Your task to perform on an android device: Search for macbook pro 15 inch on ebay, select the first entry, add it to the cart, then select checkout. Image 0: 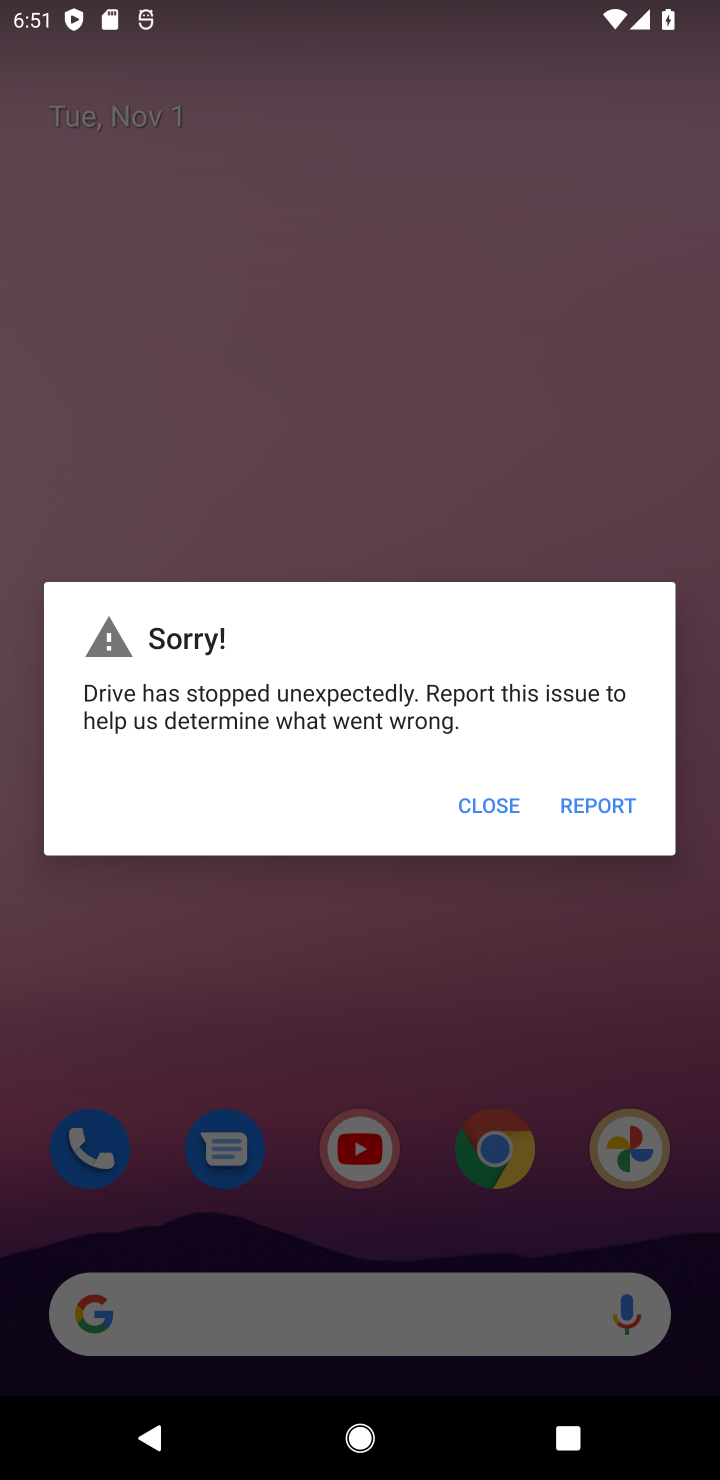
Step 0: press home button
Your task to perform on an android device: Search for macbook pro 15 inch on ebay, select the first entry, add it to the cart, then select checkout. Image 1: 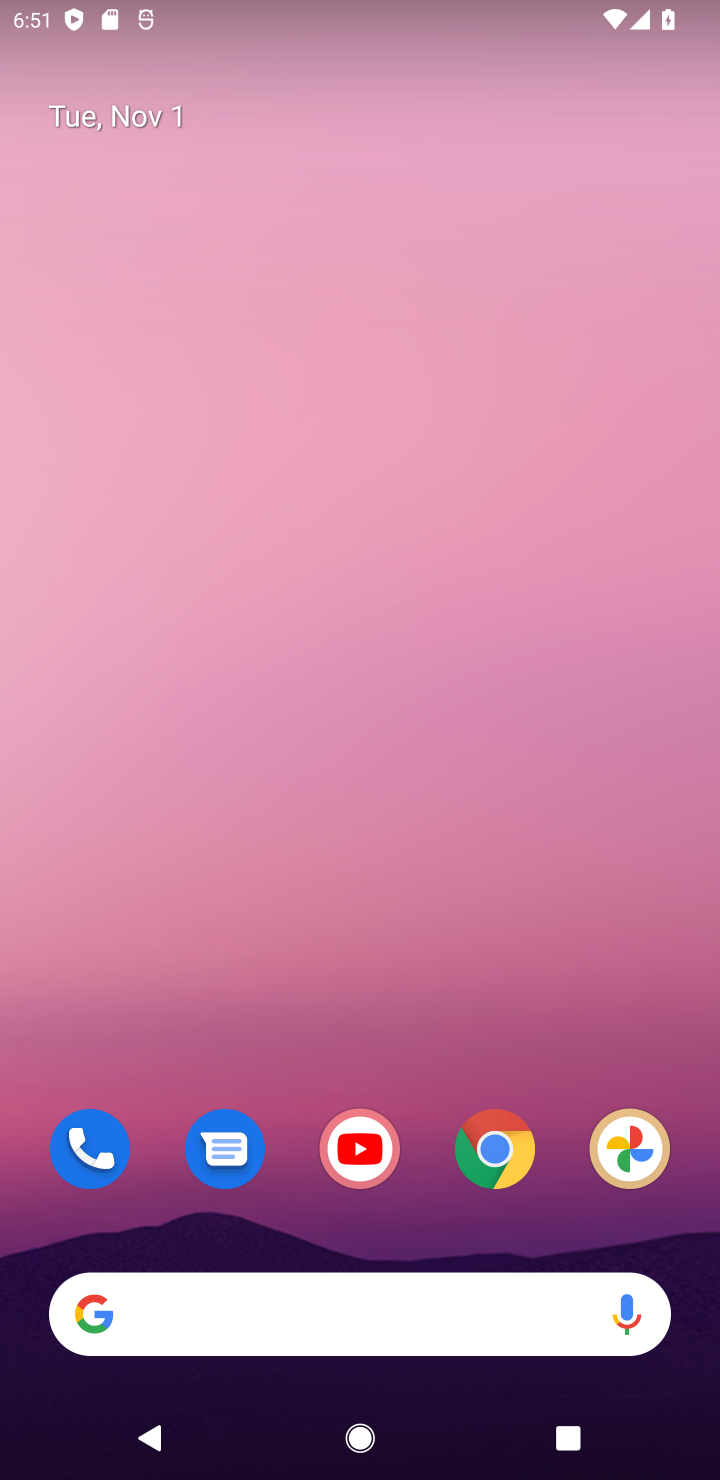
Step 1: drag from (416, 1254) to (502, 254)
Your task to perform on an android device: Search for macbook pro 15 inch on ebay, select the first entry, add it to the cart, then select checkout. Image 2: 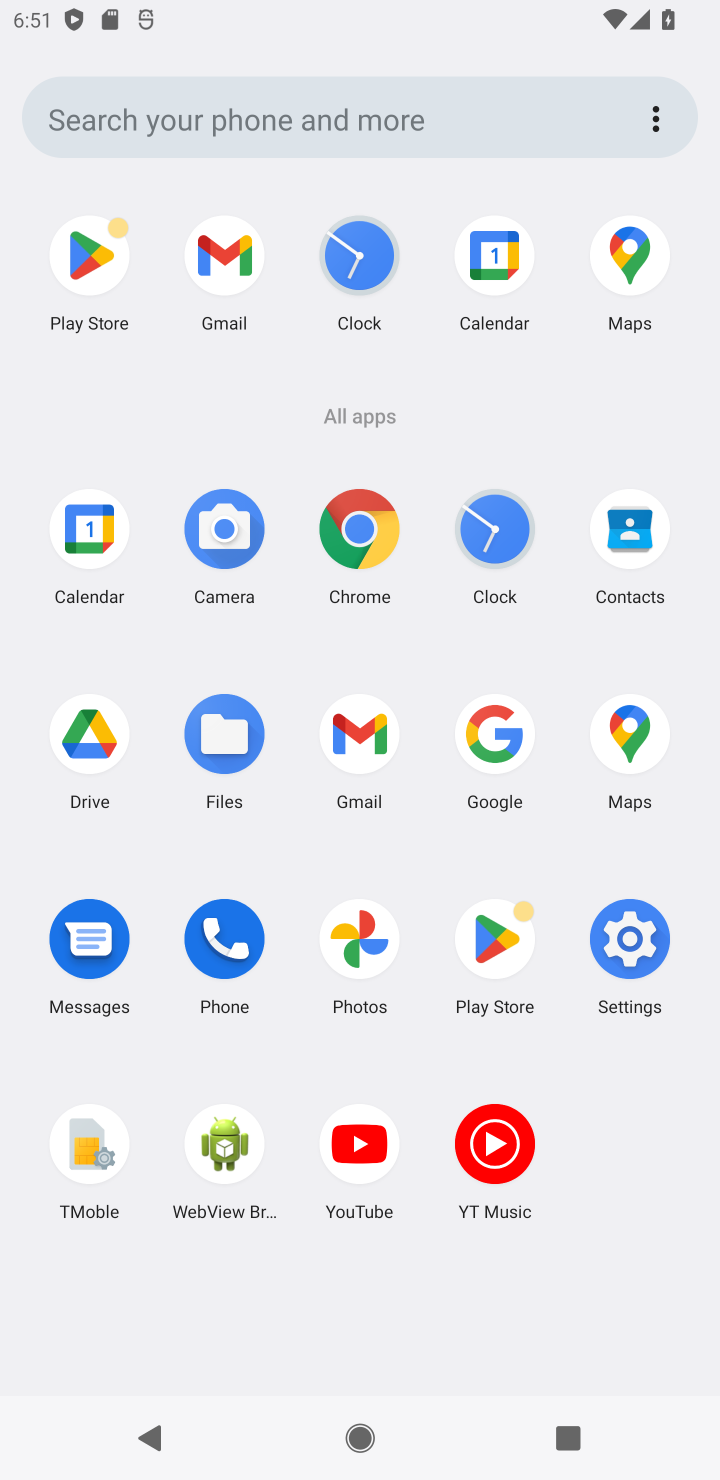
Step 2: click (364, 539)
Your task to perform on an android device: Search for macbook pro 15 inch on ebay, select the first entry, add it to the cart, then select checkout. Image 3: 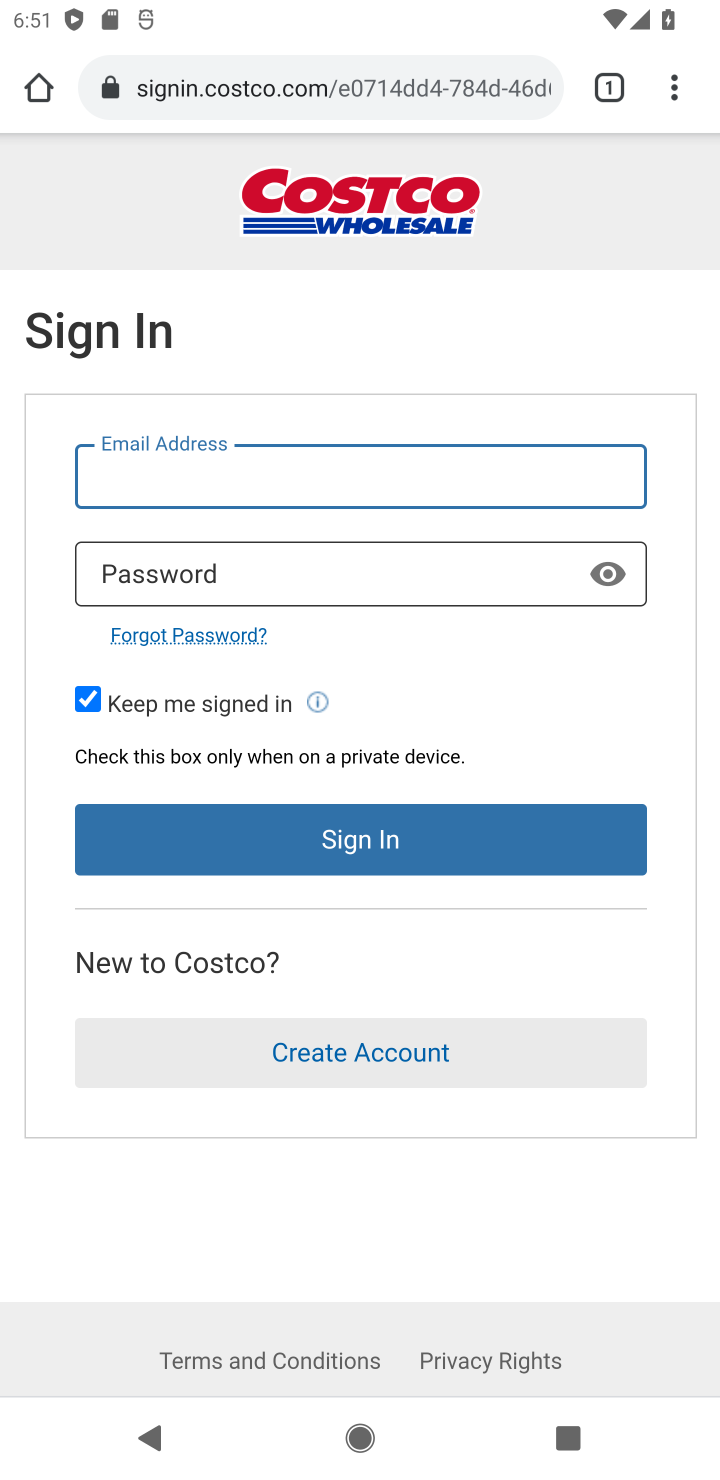
Step 3: click (420, 86)
Your task to perform on an android device: Search for macbook pro 15 inch on ebay, select the first entry, add it to the cart, then select checkout. Image 4: 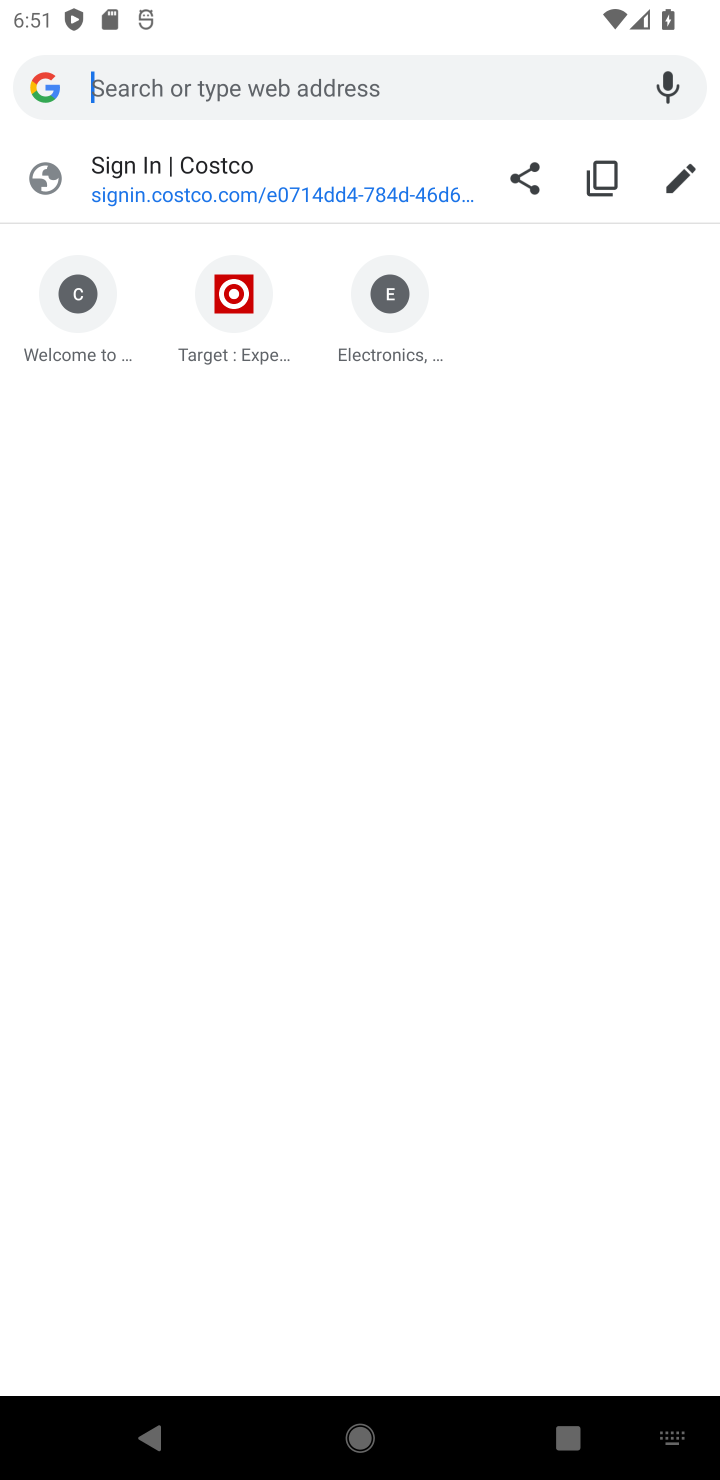
Step 4: type "ebay.com"
Your task to perform on an android device: Search for macbook pro 15 inch on ebay, select the first entry, add it to the cart, then select checkout. Image 5: 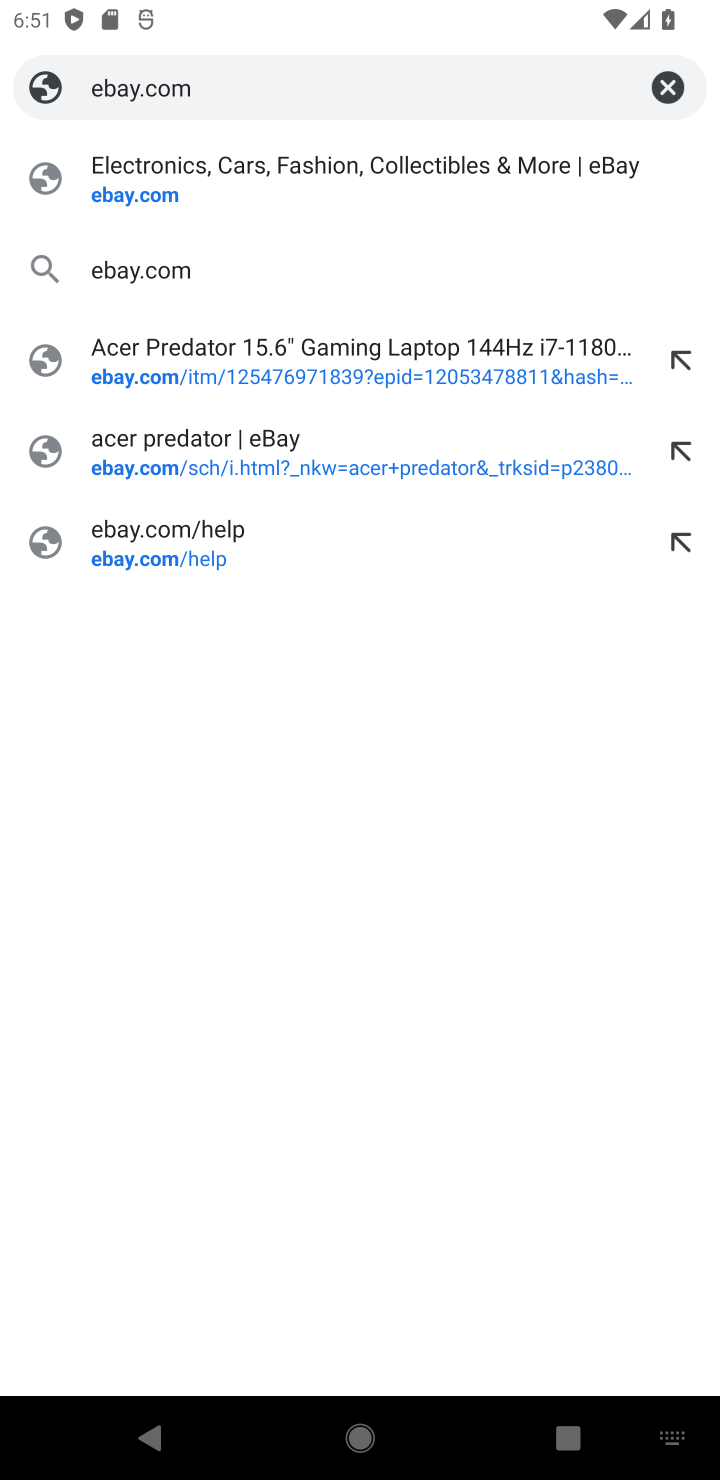
Step 5: press enter
Your task to perform on an android device: Search for macbook pro 15 inch on ebay, select the first entry, add it to the cart, then select checkout. Image 6: 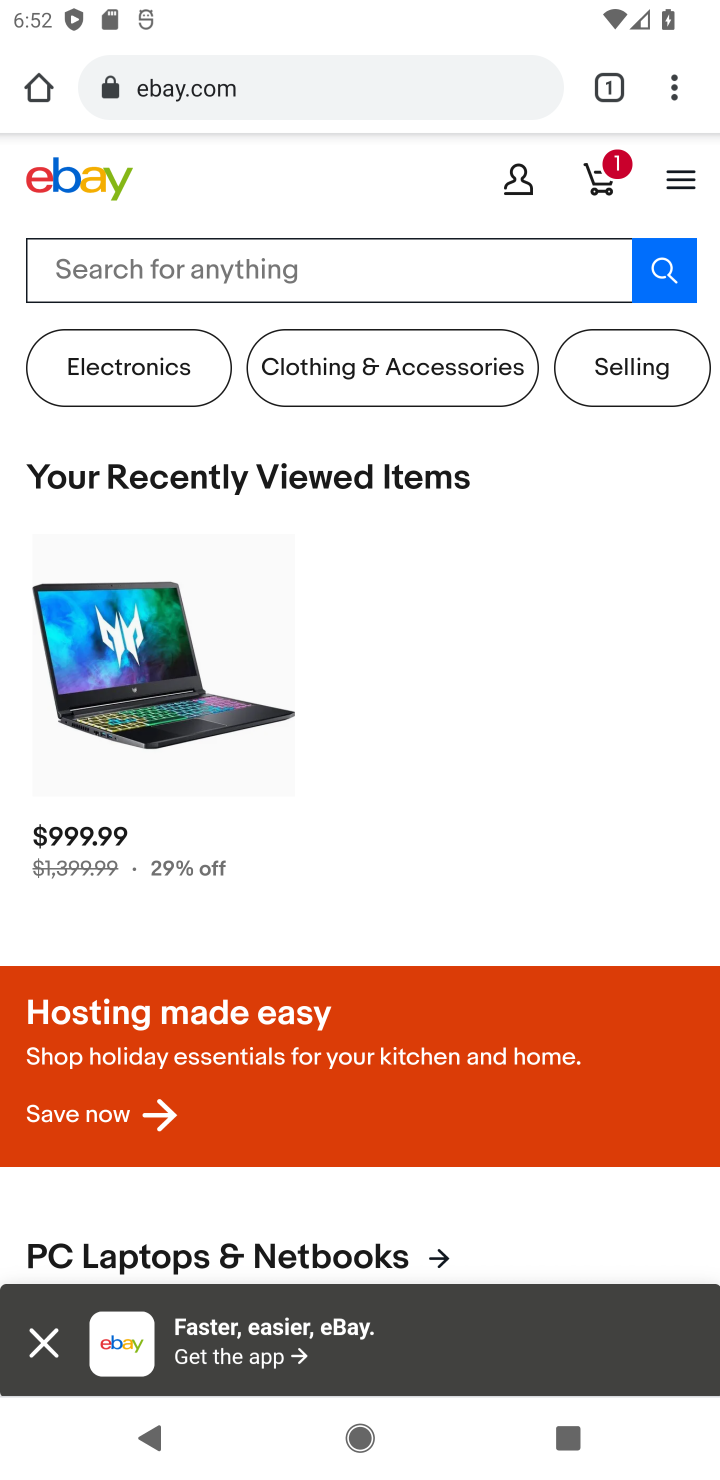
Step 6: click (407, 277)
Your task to perform on an android device: Search for macbook pro 15 inch on ebay, select the first entry, add it to the cart, then select checkout. Image 7: 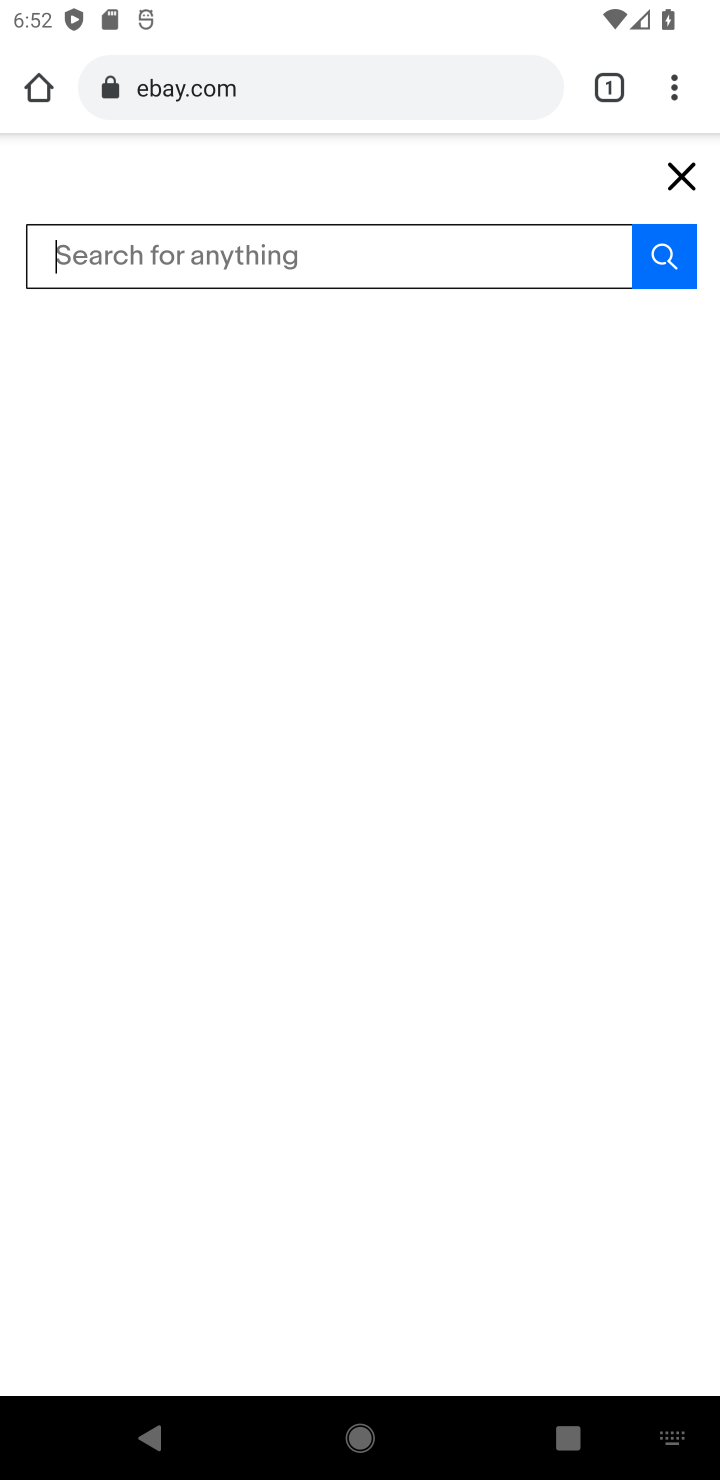
Step 7: type "macbook pro 15"
Your task to perform on an android device: Search for macbook pro 15 inch on ebay, select the first entry, add it to the cart, then select checkout. Image 8: 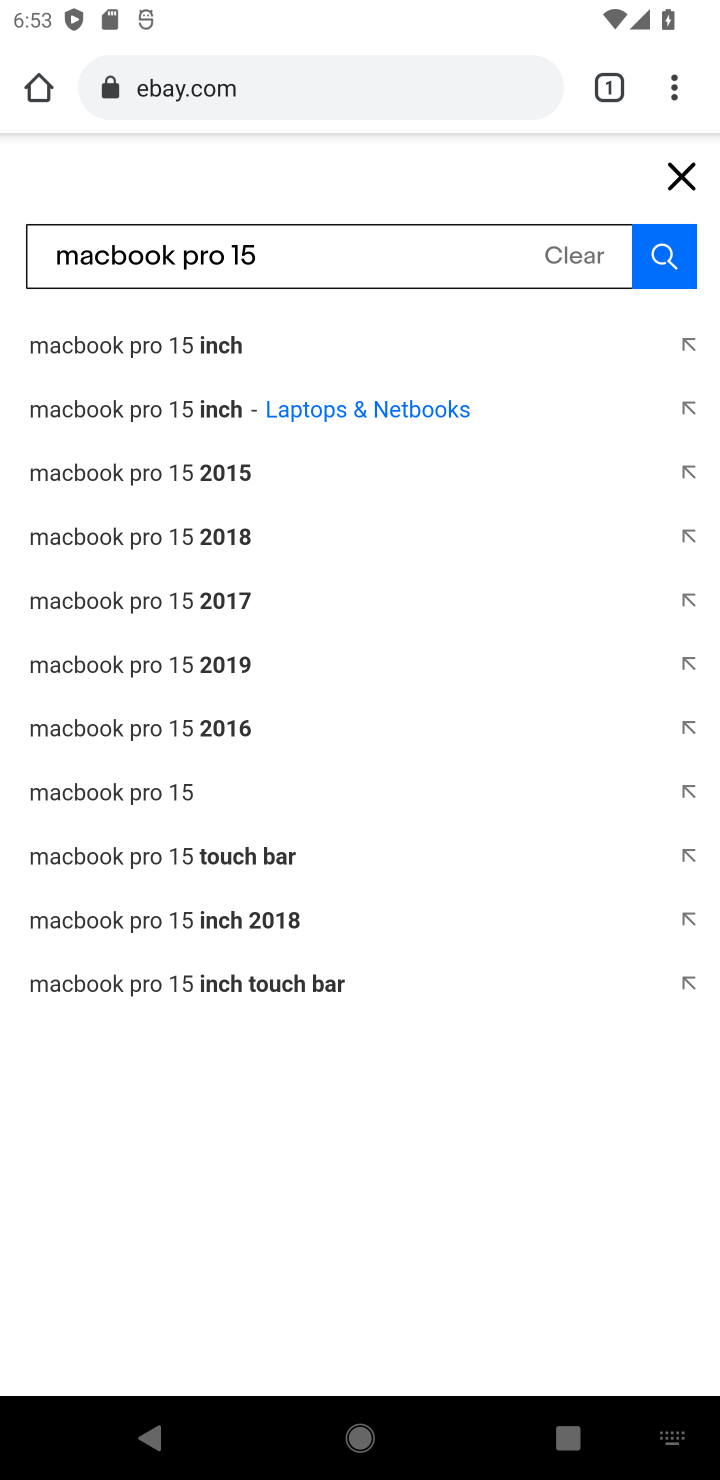
Step 8: click (670, 231)
Your task to perform on an android device: Search for macbook pro 15 inch on ebay, select the first entry, add it to the cart, then select checkout. Image 9: 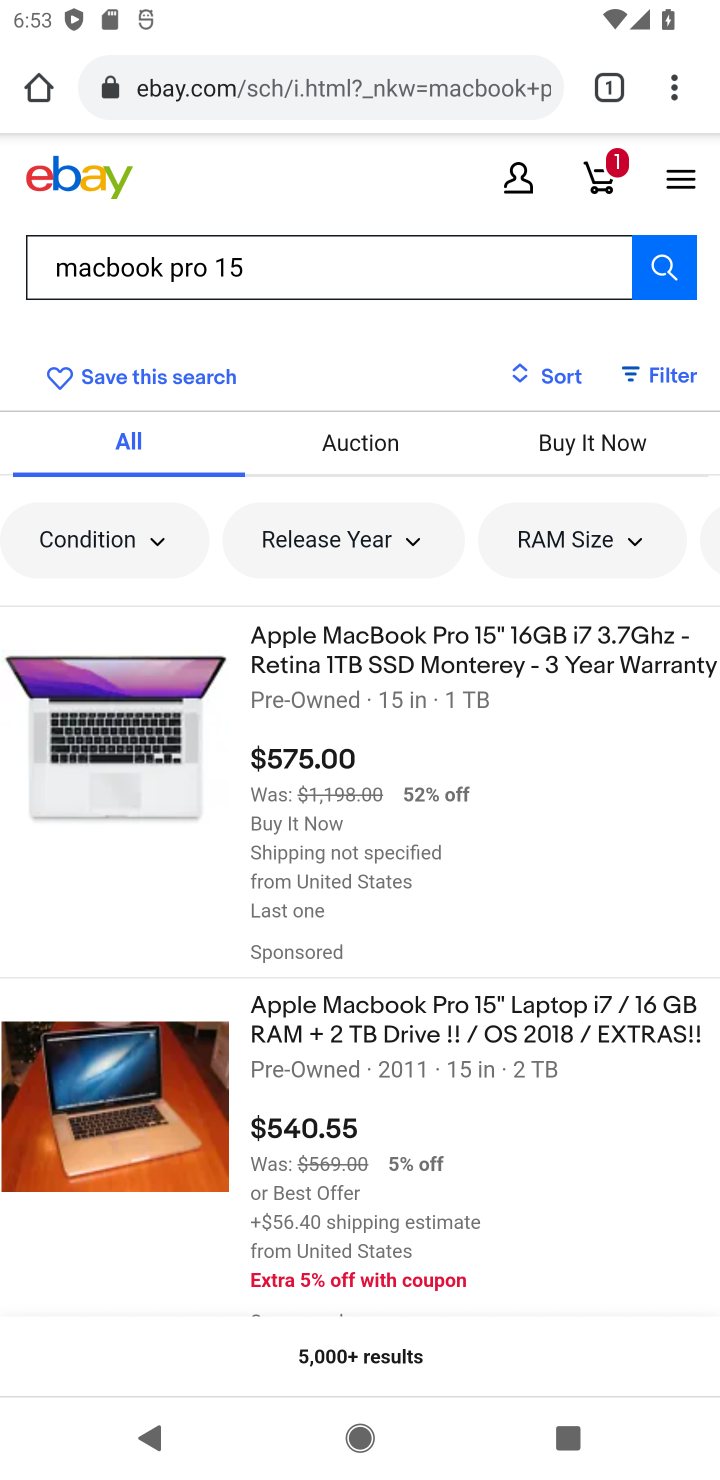
Step 9: click (309, 654)
Your task to perform on an android device: Search for macbook pro 15 inch on ebay, select the first entry, add it to the cart, then select checkout. Image 10: 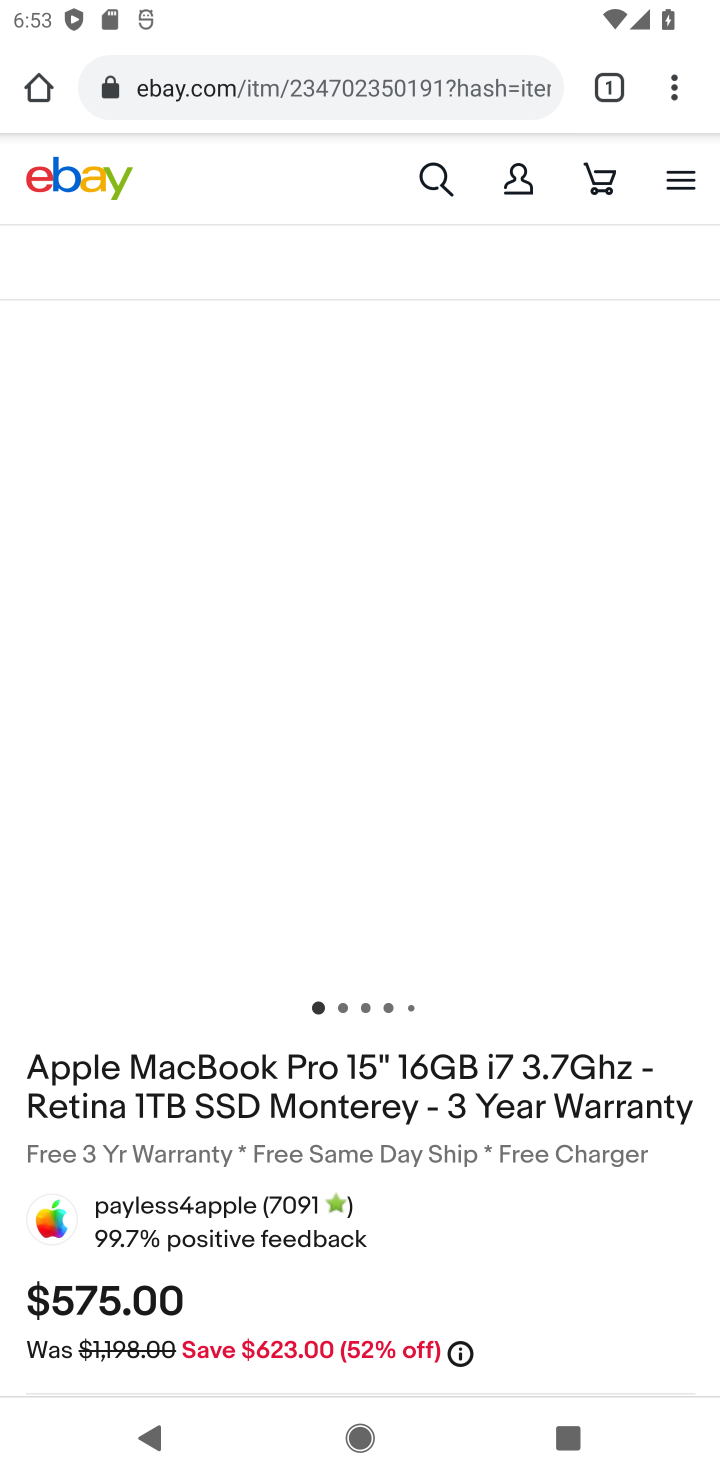
Step 10: drag from (412, 1224) to (719, 54)
Your task to perform on an android device: Search for macbook pro 15 inch on ebay, select the first entry, add it to the cart, then select checkout. Image 11: 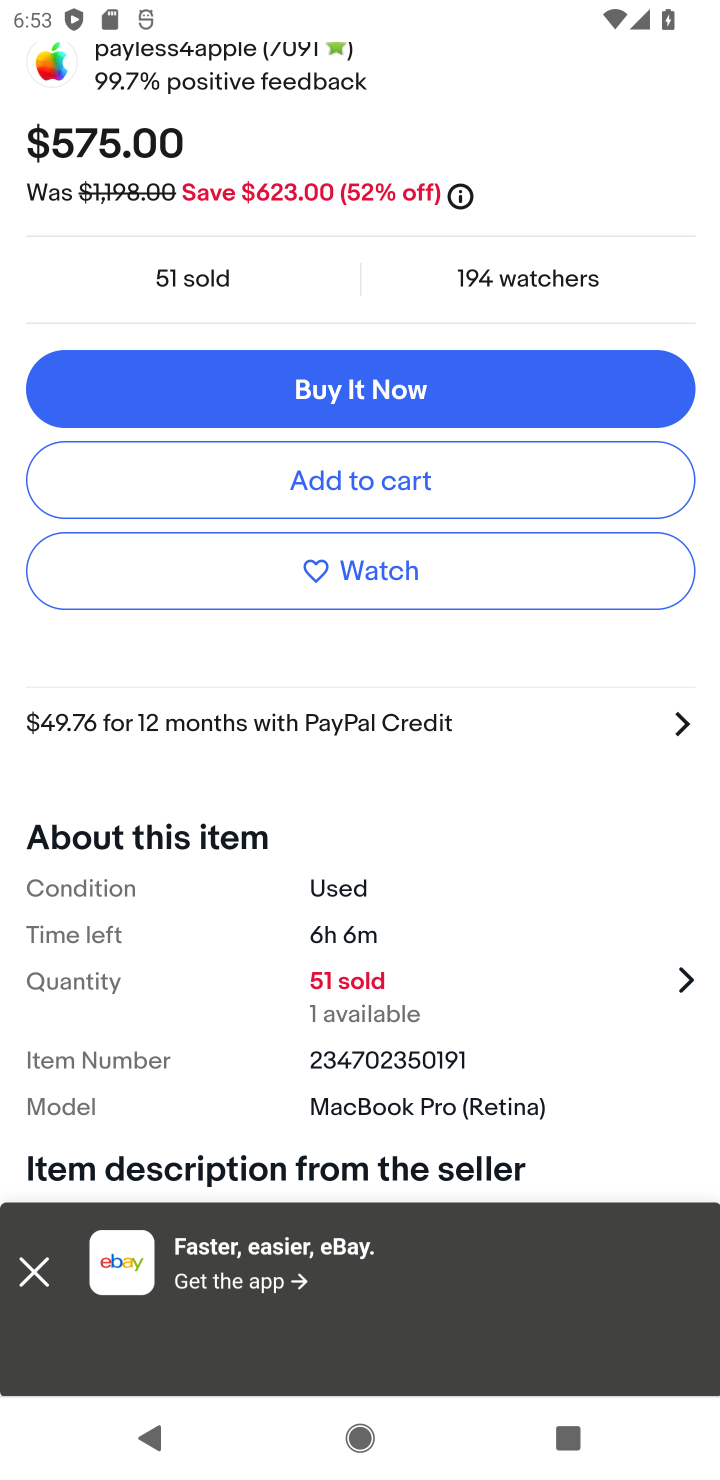
Step 11: click (398, 490)
Your task to perform on an android device: Search for macbook pro 15 inch on ebay, select the first entry, add it to the cart, then select checkout. Image 12: 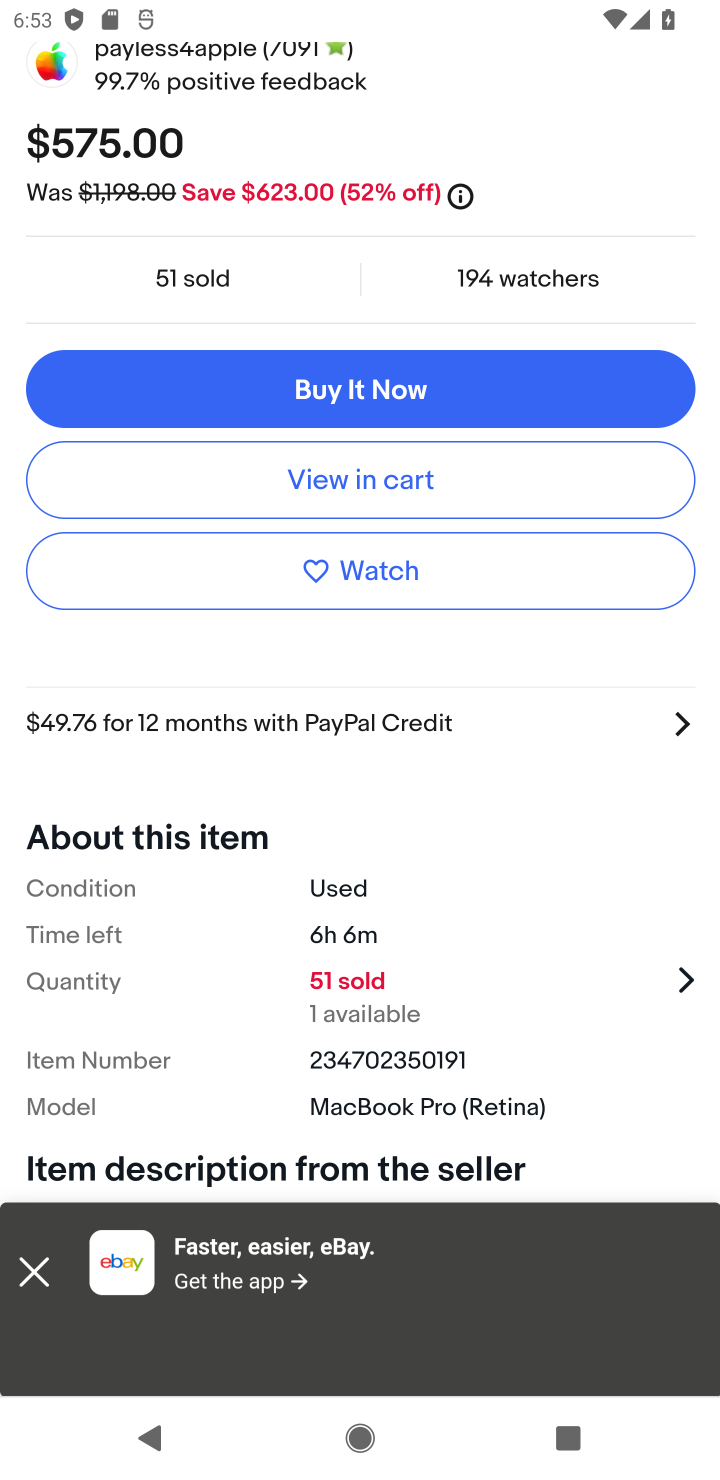
Step 12: click (474, 498)
Your task to perform on an android device: Search for macbook pro 15 inch on ebay, select the first entry, add it to the cart, then select checkout. Image 13: 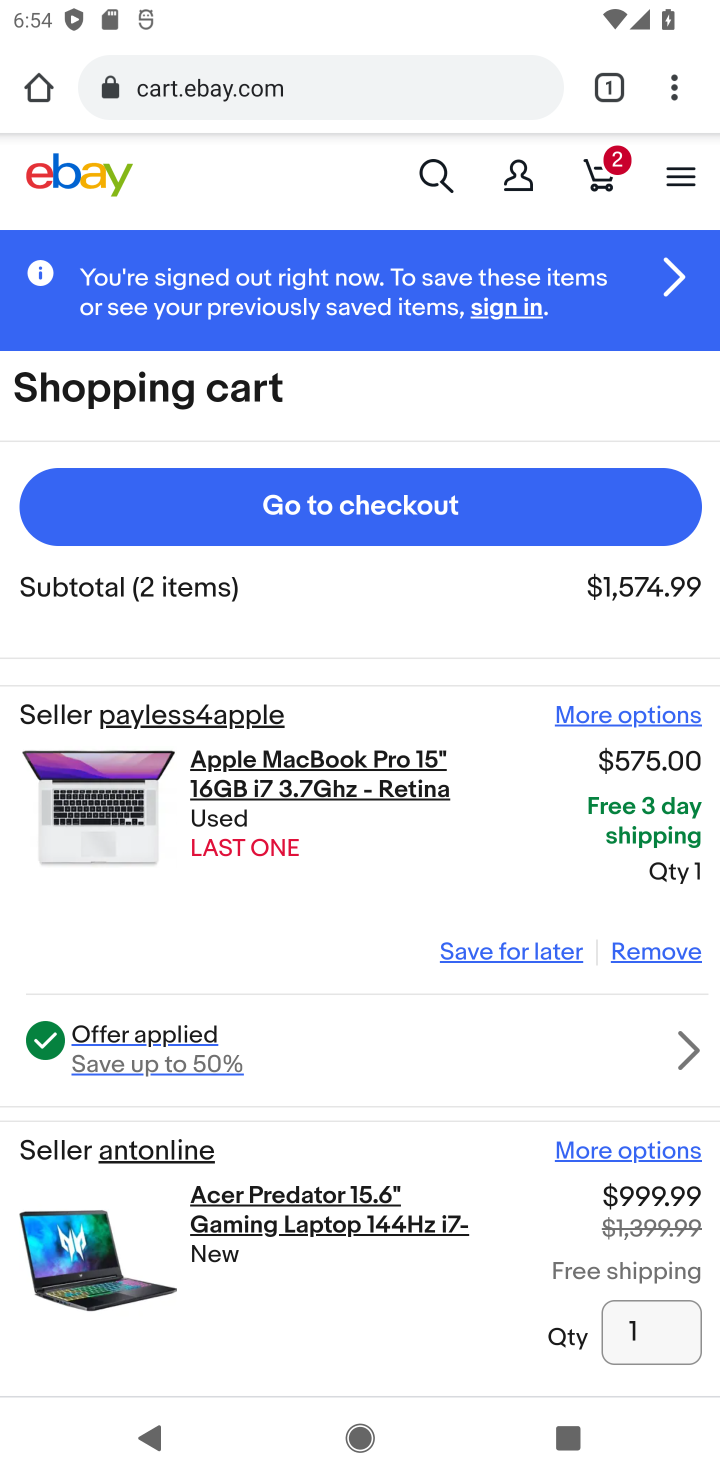
Step 13: click (477, 499)
Your task to perform on an android device: Search for macbook pro 15 inch on ebay, select the first entry, add it to the cart, then select checkout. Image 14: 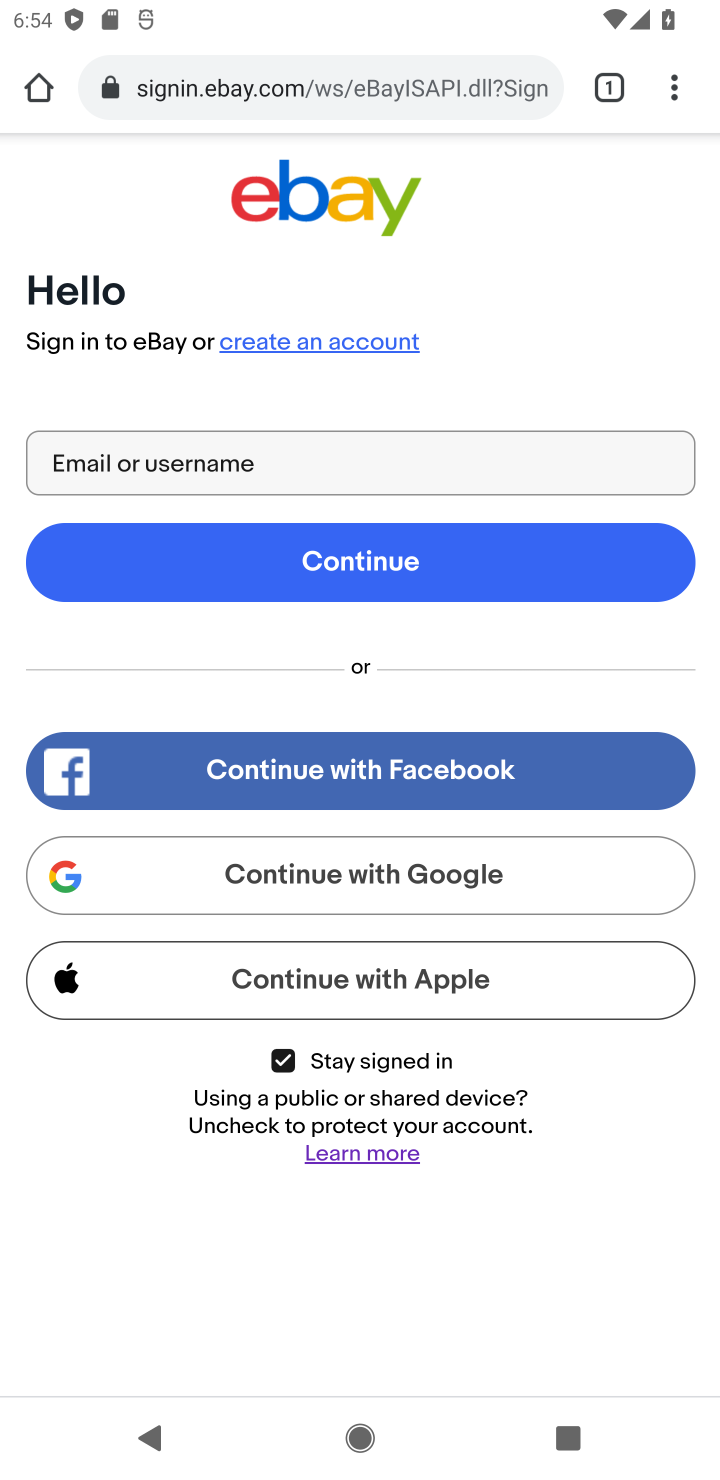
Step 14: task complete